Your task to perform on an android device: Open Google Maps and go to "Timeline" Image 0: 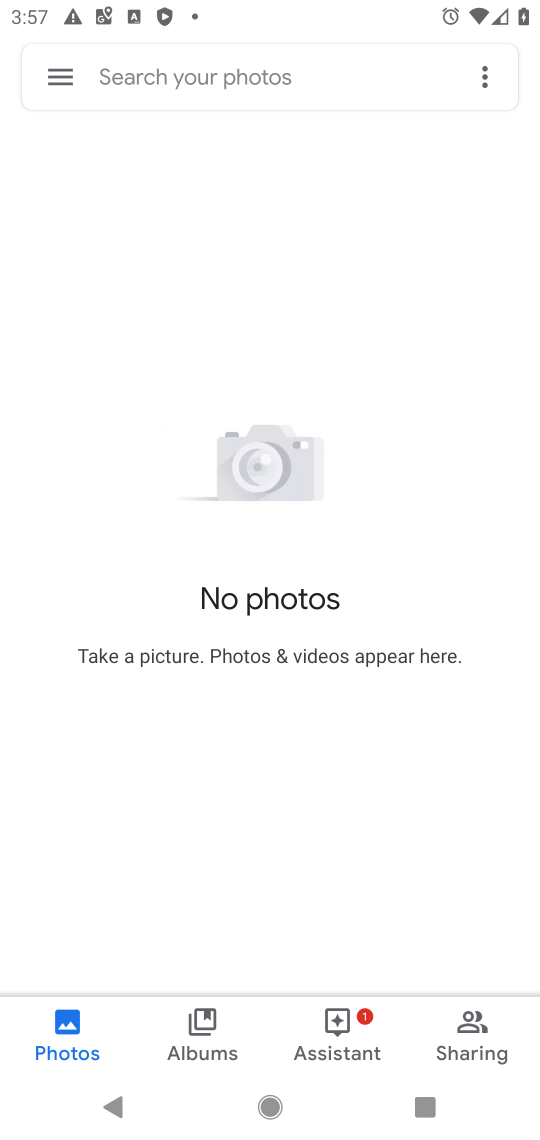
Step 0: press home button
Your task to perform on an android device: Open Google Maps and go to "Timeline" Image 1: 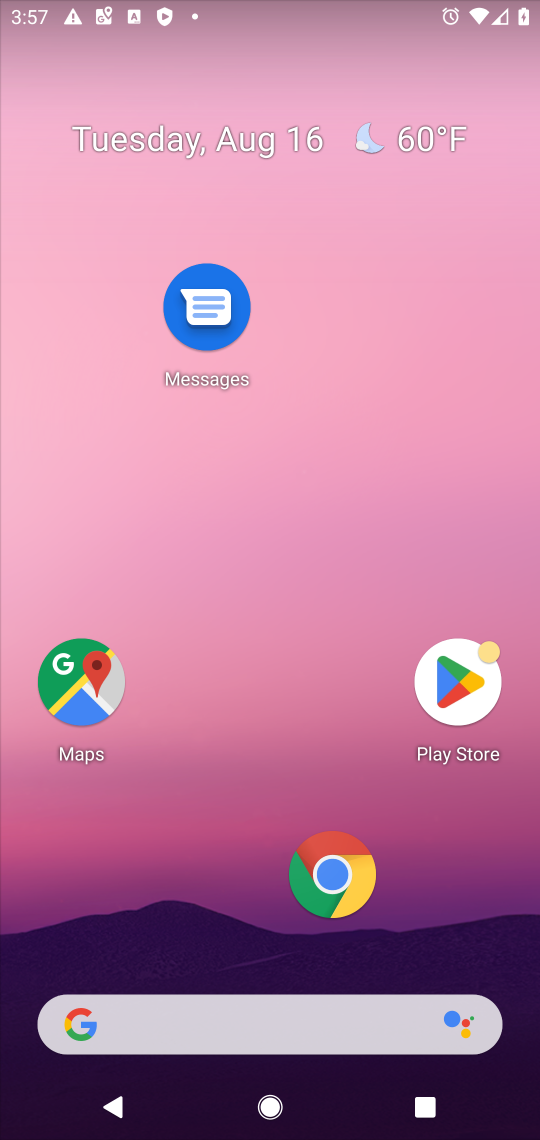
Step 1: click (73, 688)
Your task to perform on an android device: Open Google Maps and go to "Timeline" Image 2: 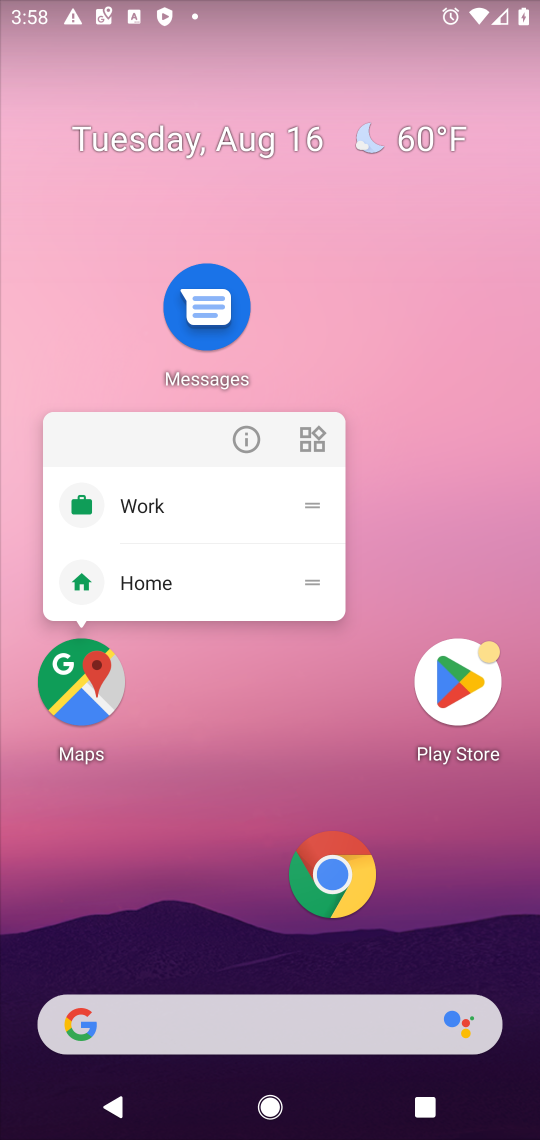
Step 2: click (73, 689)
Your task to perform on an android device: Open Google Maps and go to "Timeline" Image 3: 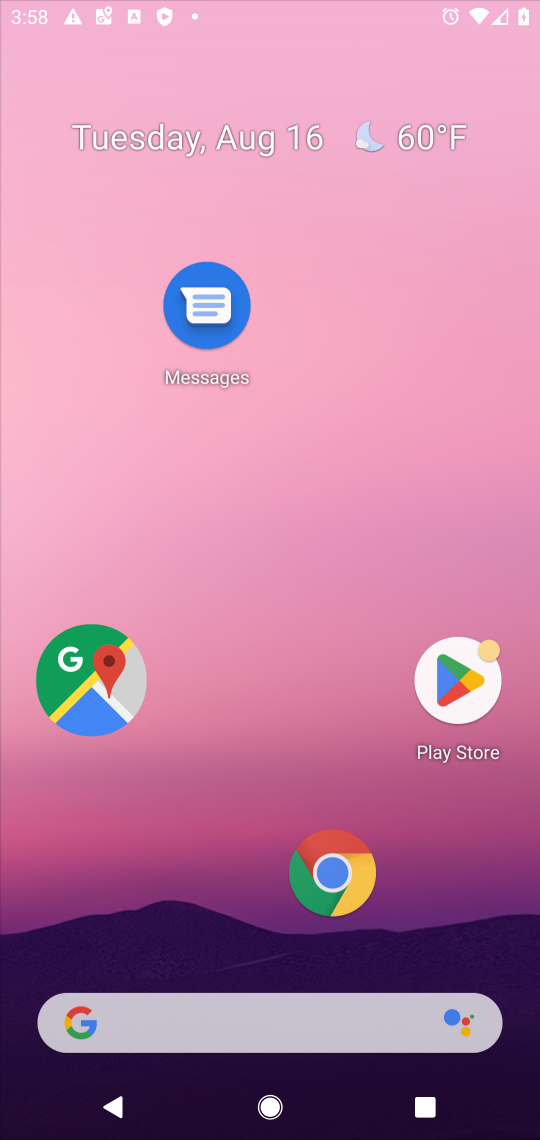
Step 3: drag from (73, 689) to (133, 689)
Your task to perform on an android device: Open Google Maps and go to "Timeline" Image 4: 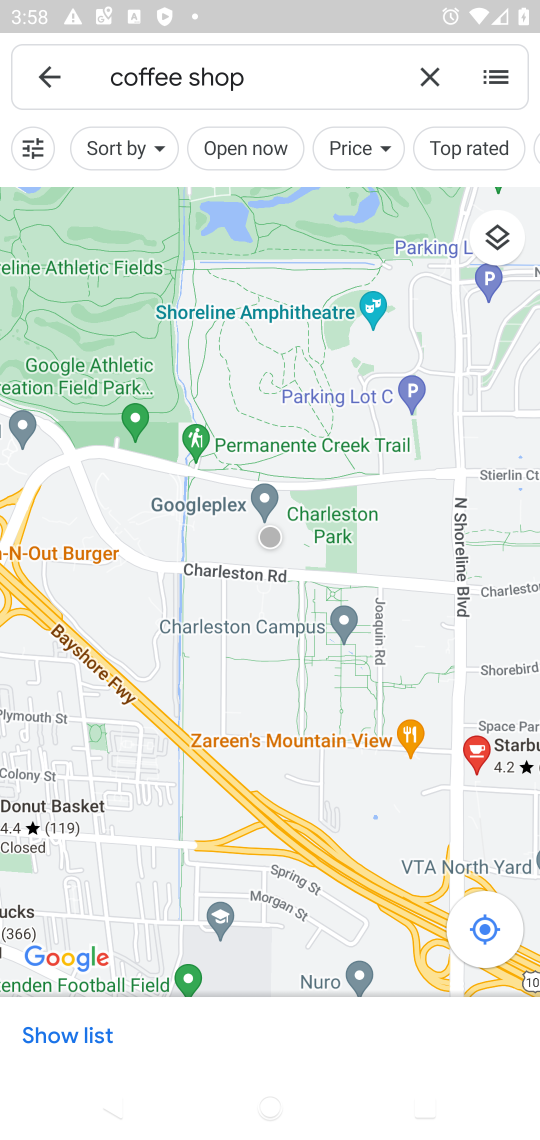
Step 4: click (427, 78)
Your task to perform on an android device: Open Google Maps and go to "Timeline" Image 5: 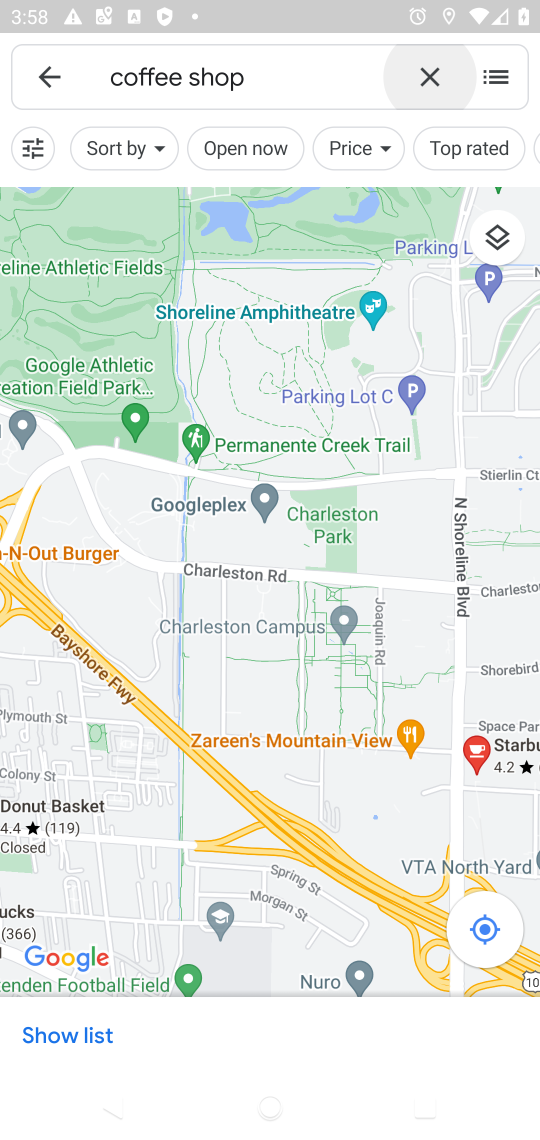
Step 5: click (422, 82)
Your task to perform on an android device: Open Google Maps and go to "Timeline" Image 6: 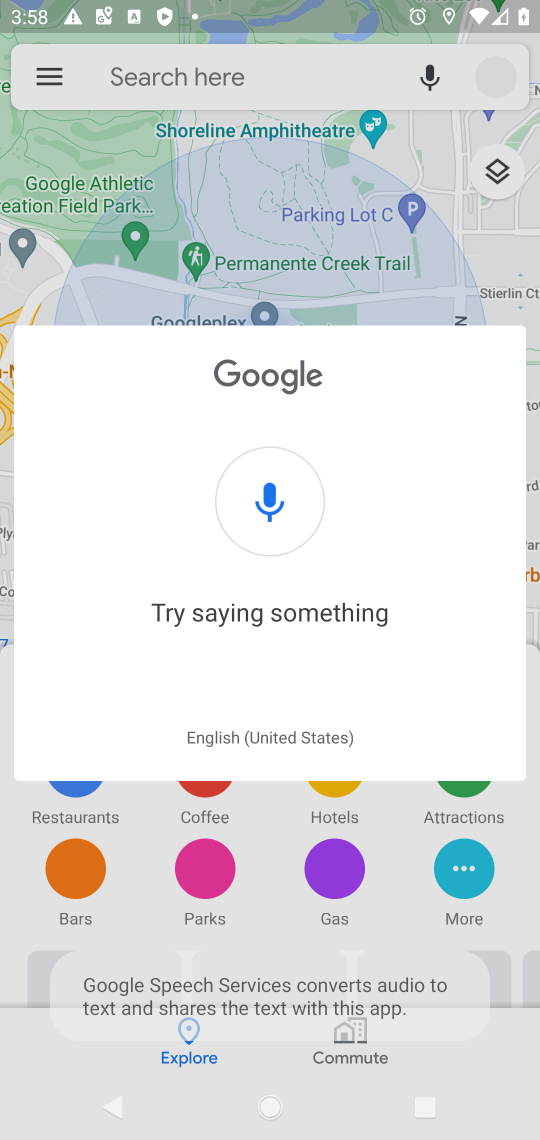
Step 6: click (60, 77)
Your task to perform on an android device: Open Google Maps and go to "Timeline" Image 7: 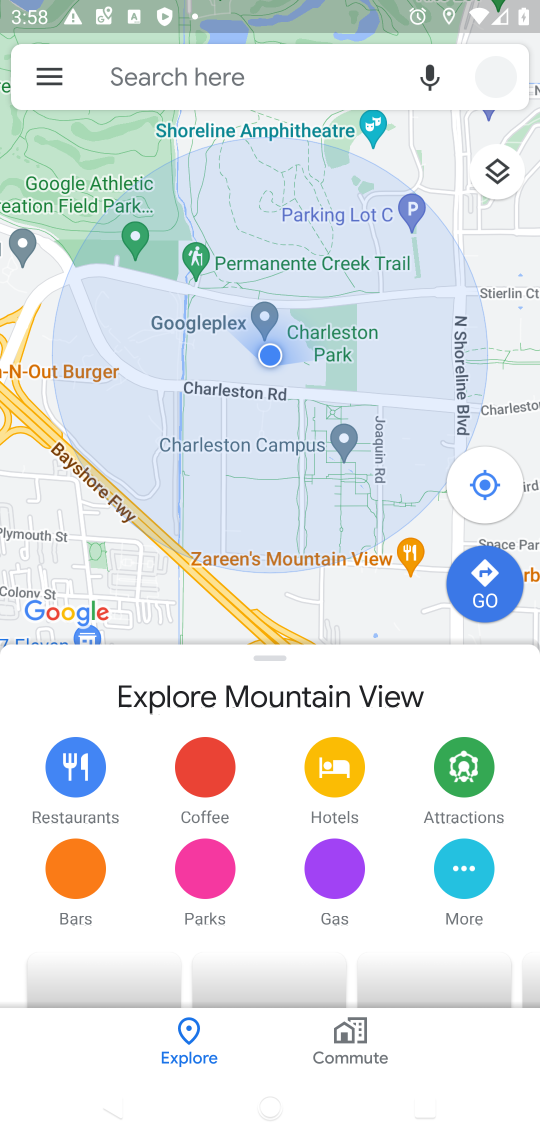
Step 7: click (53, 85)
Your task to perform on an android device: Open Google Maps and go to "Timeline" Image 8: 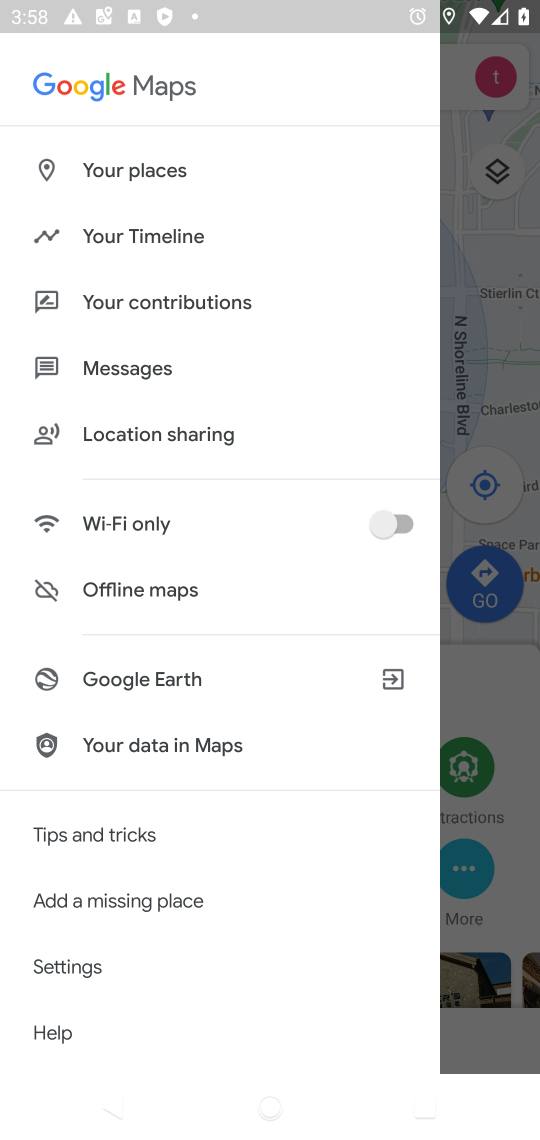
Step 8: click (152, 225)
Your task to perform on an android device: Open Google Maps and go to "Timeline" Image 9: 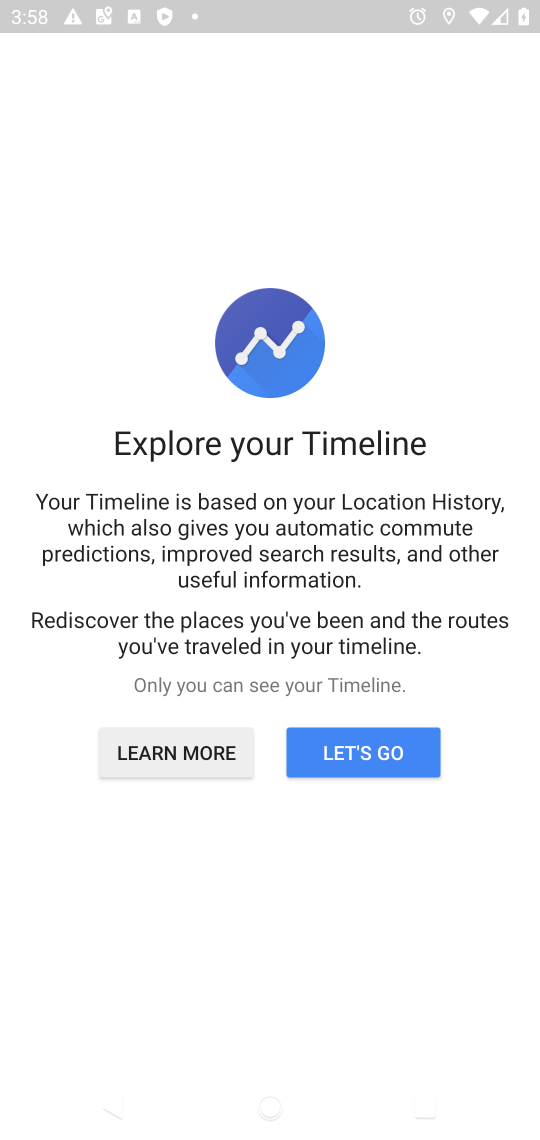
Step 9: task complete